Your task to perform on an android device: Add "razer nari" to the cart on newegg.com, then select checkout. Image 0: 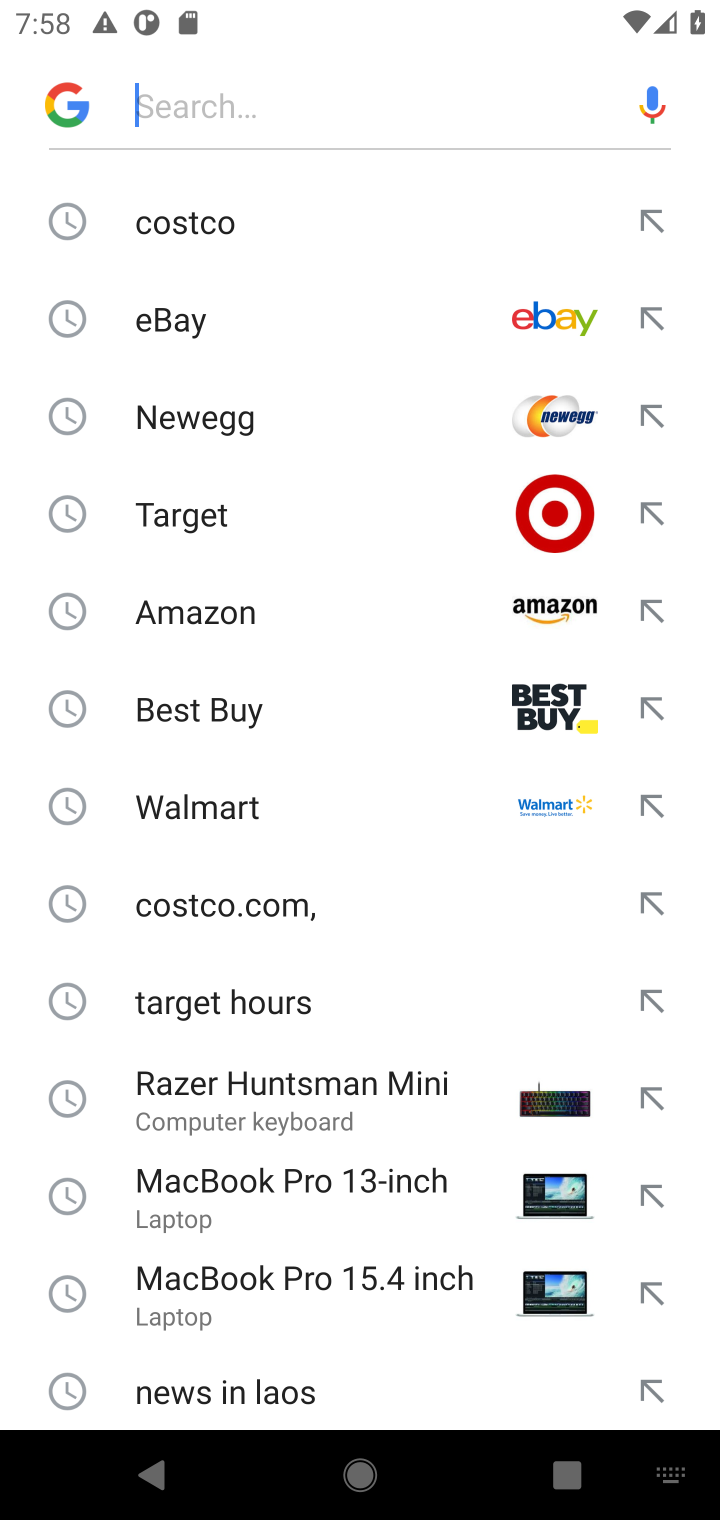
Step 0: type "newegg.com"
Your task to perform on an android device: Add "razer nari" to the cart on newegg.com, then select checkout. Image 1: 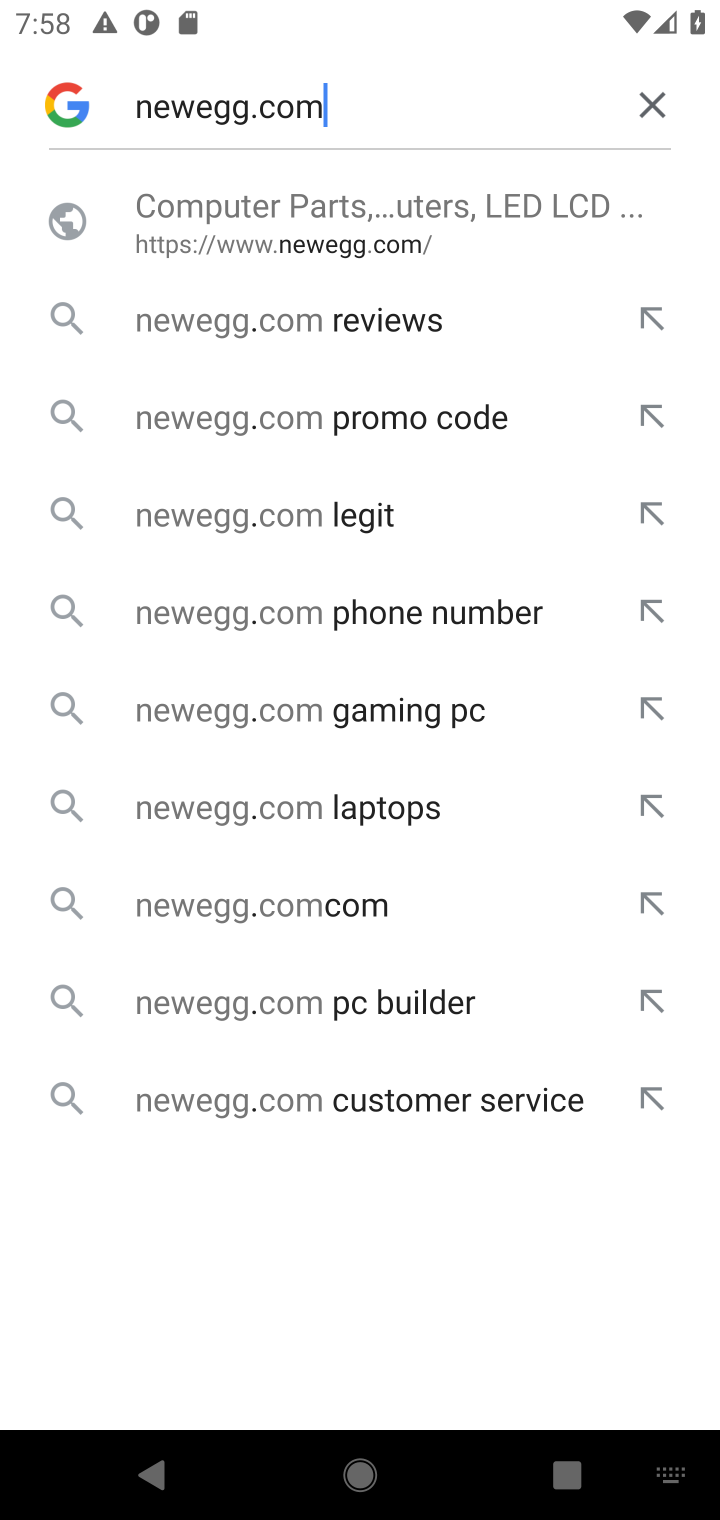
Step 1: click (144, 231)
Your task to perform on an android device: Add "razer nari" to the cart on newegg.com, then select checkout. Image 2: 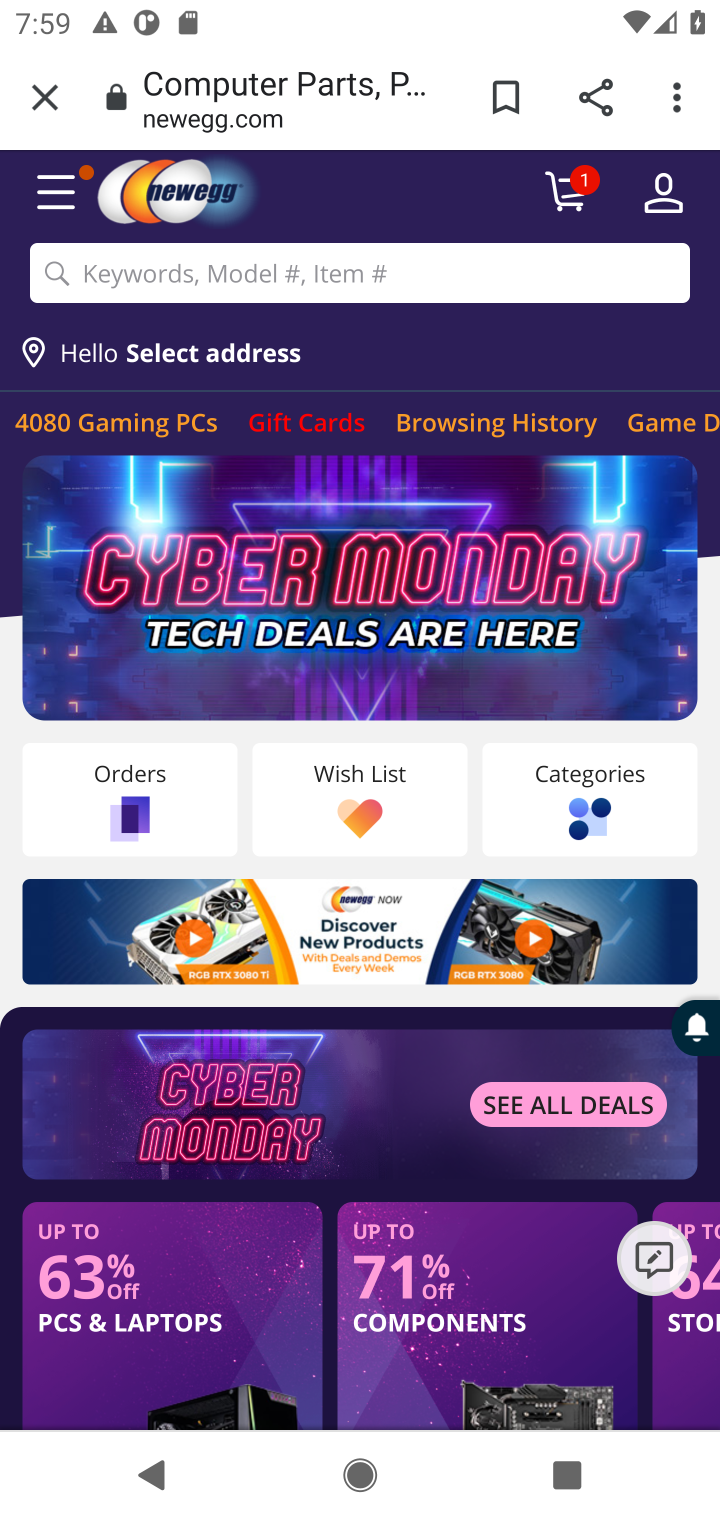
Step 2: click (107, 306)
Your task to perform on an android device: Add "razer nari" to the cart on newegg.com, then select checkout. Image 3: 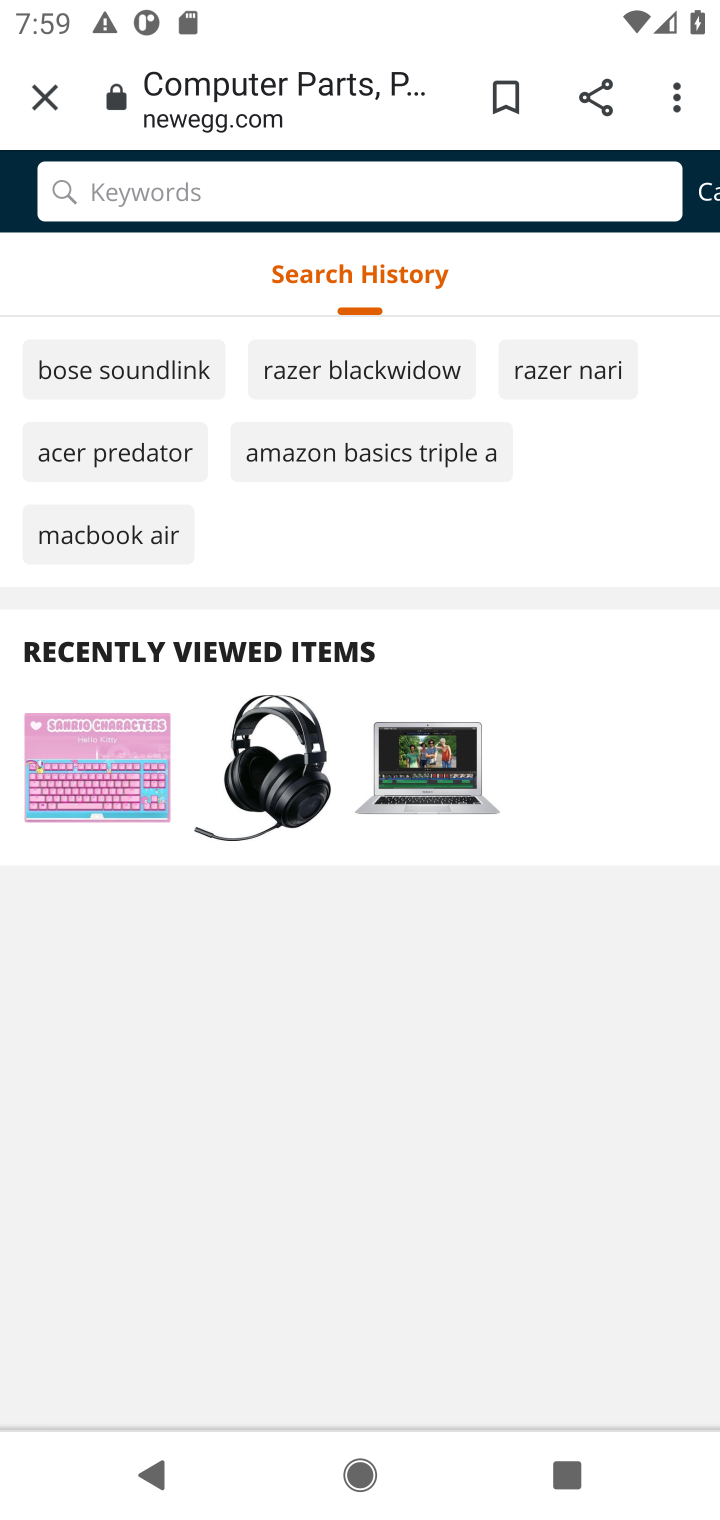
Step 3: click (116, 286)
Your task to perform on an android device: Add "razer nari" to the cart on newegg.com, then select checkout. Image 4: 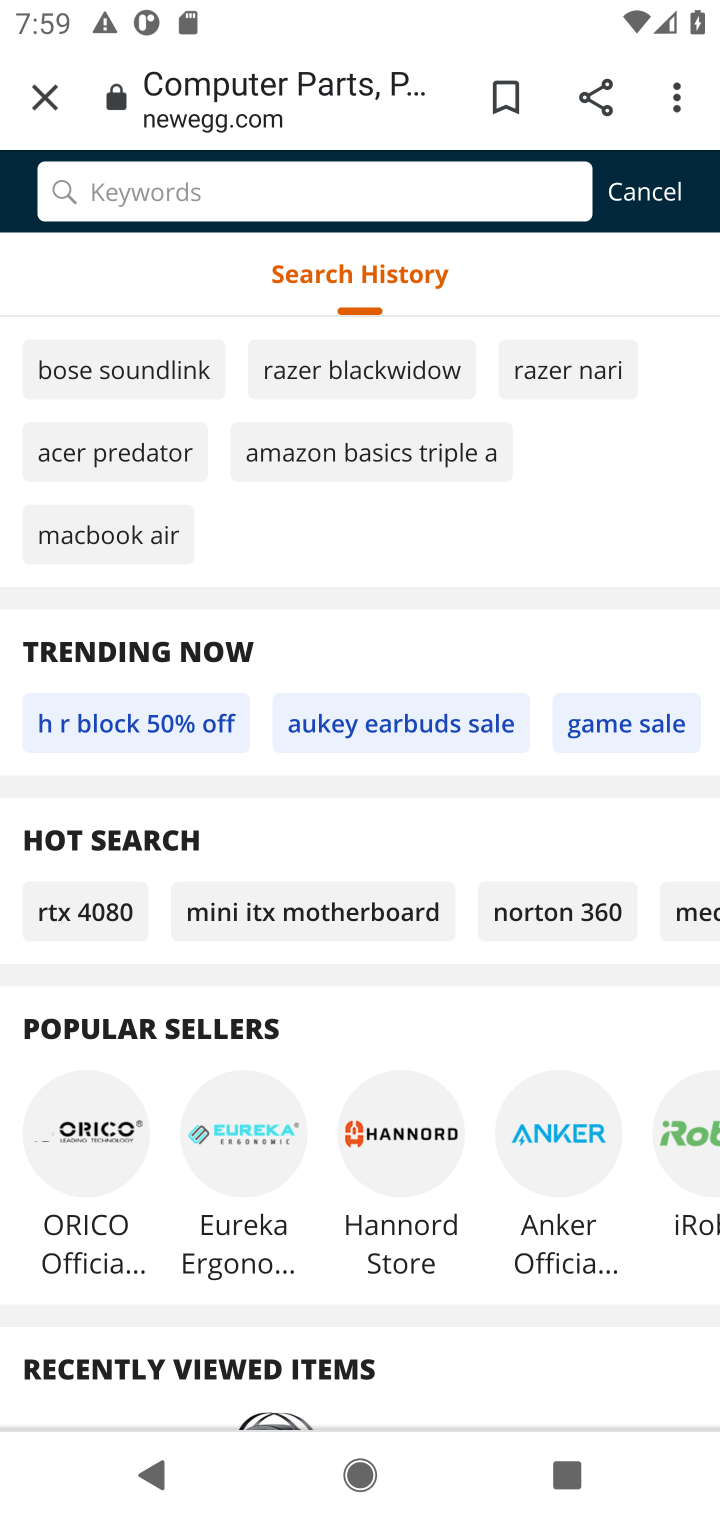
Step 4: click (98, 200)
Your task to perform on an android device: Add "razer nari" to the cart on newegg.com, then select checkout. Image 5: 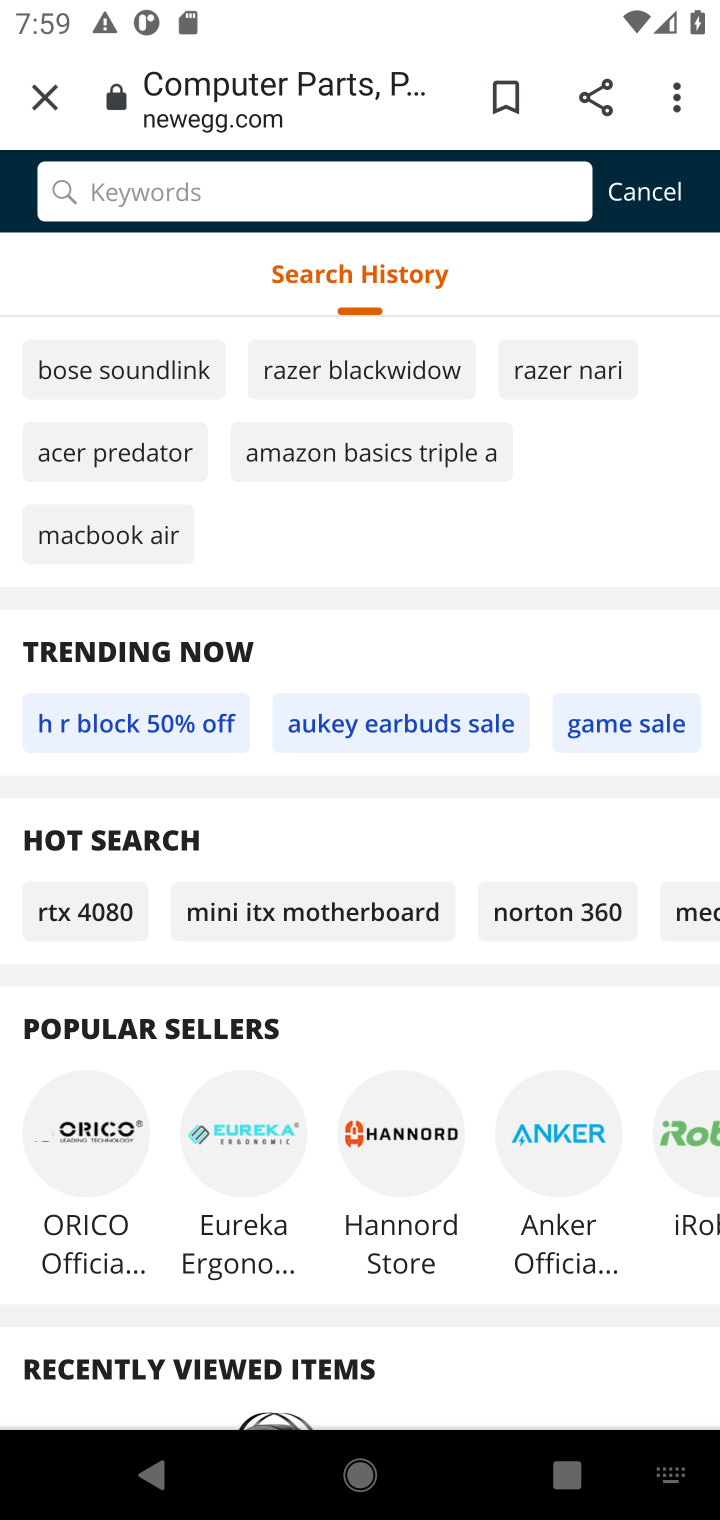
Step 5: type "razer nari"
Your task to perform on an android device: Add "razer nari" to the cart on newegg.com, then select checkout. Image 6: 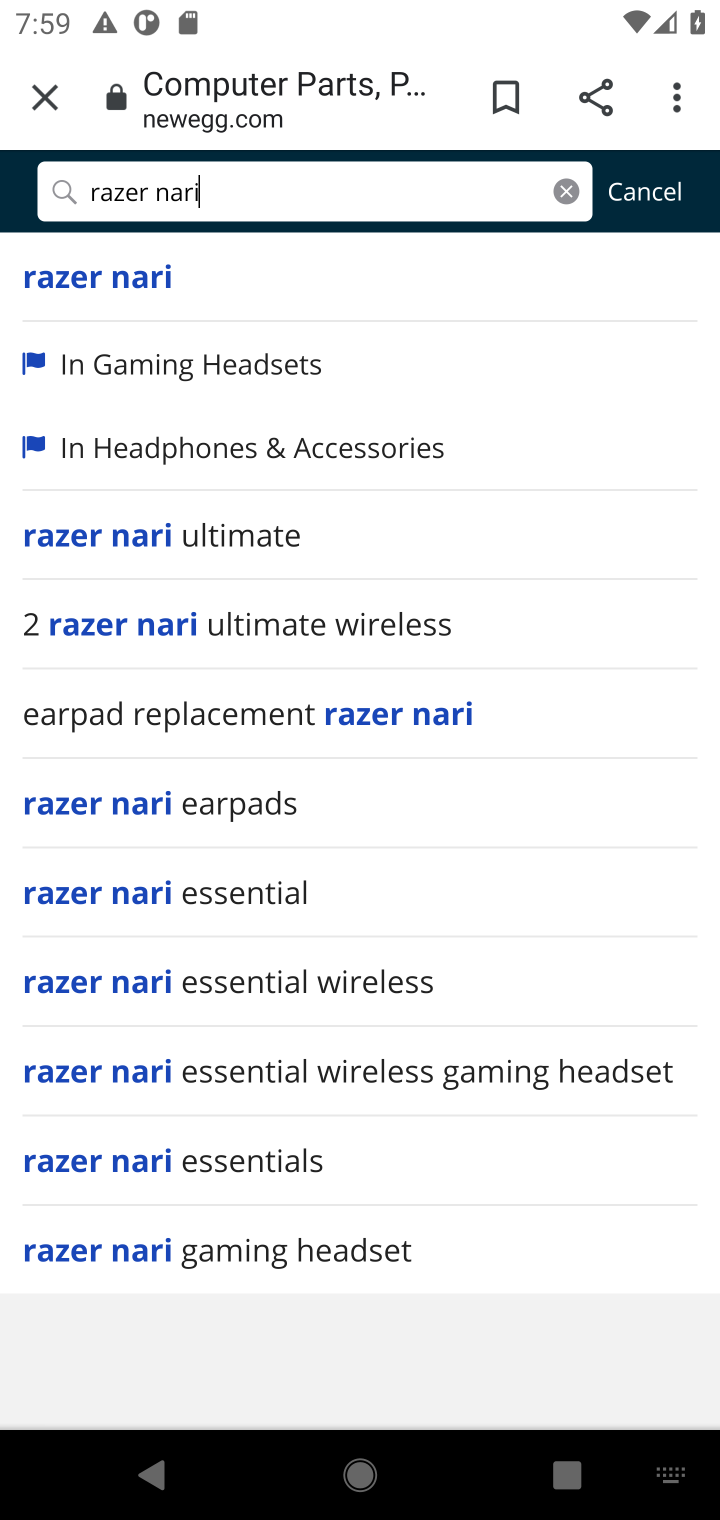
Step 6: click (133, 296)
Your task to perform on an android device: Add "razer nari" to the cart on newegg.com, then select checkout. Image 7: 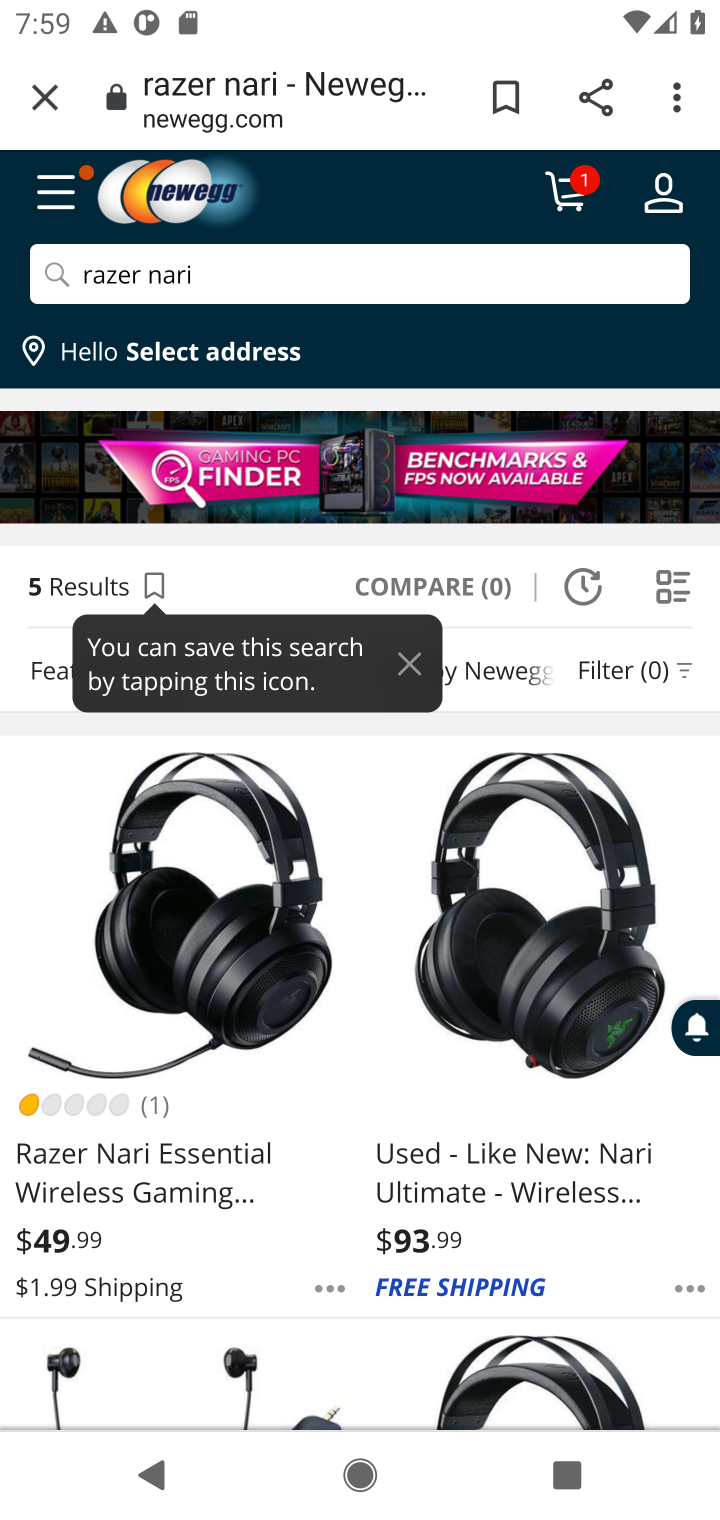
Step 7: click (211, 965)
Your task to perform on an android device: Add "razer nari" to the cart on newegg.com, then select checkout. Image 8: 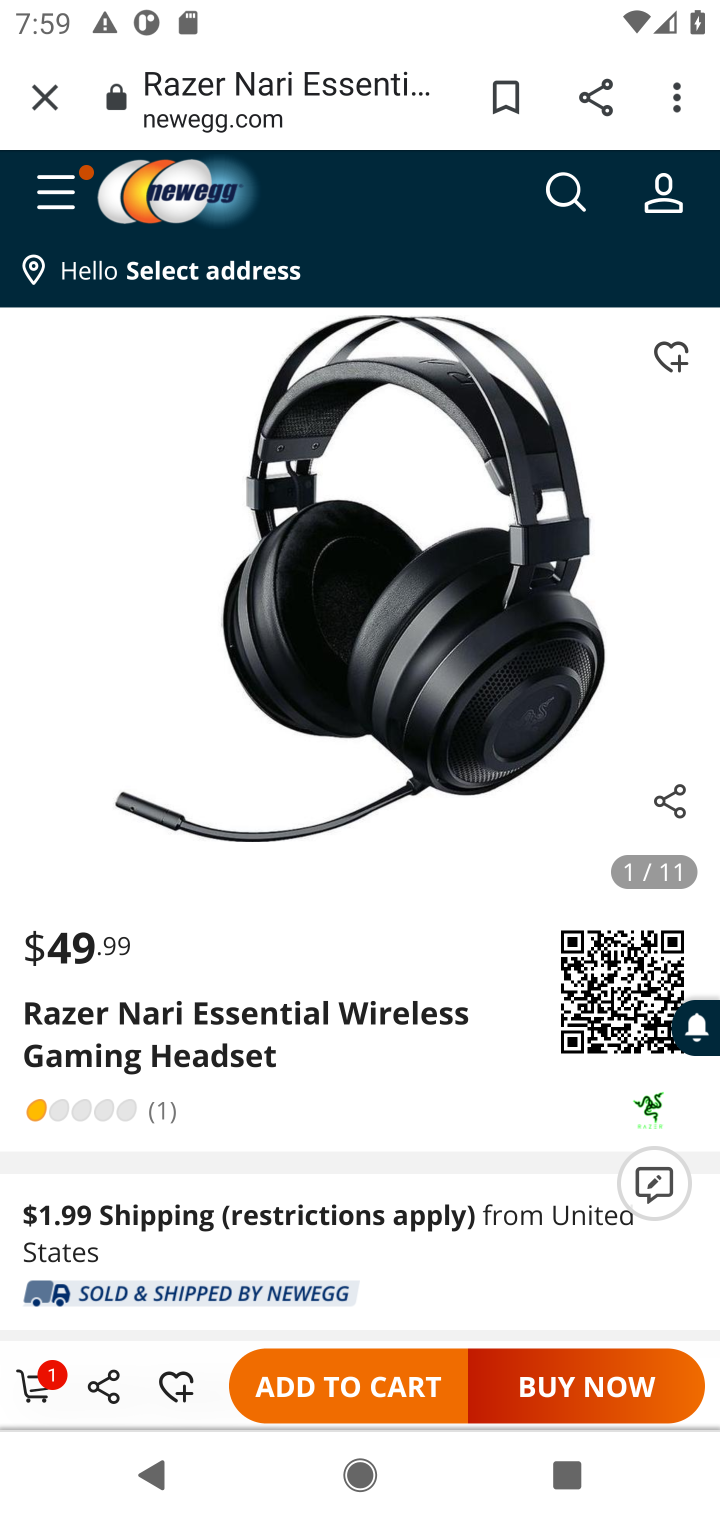
Step 8: click (306, 1375)
Your task to perform on an android device: Add "razer nari" to the cart on newegg.com, then select checkout. Image 9: 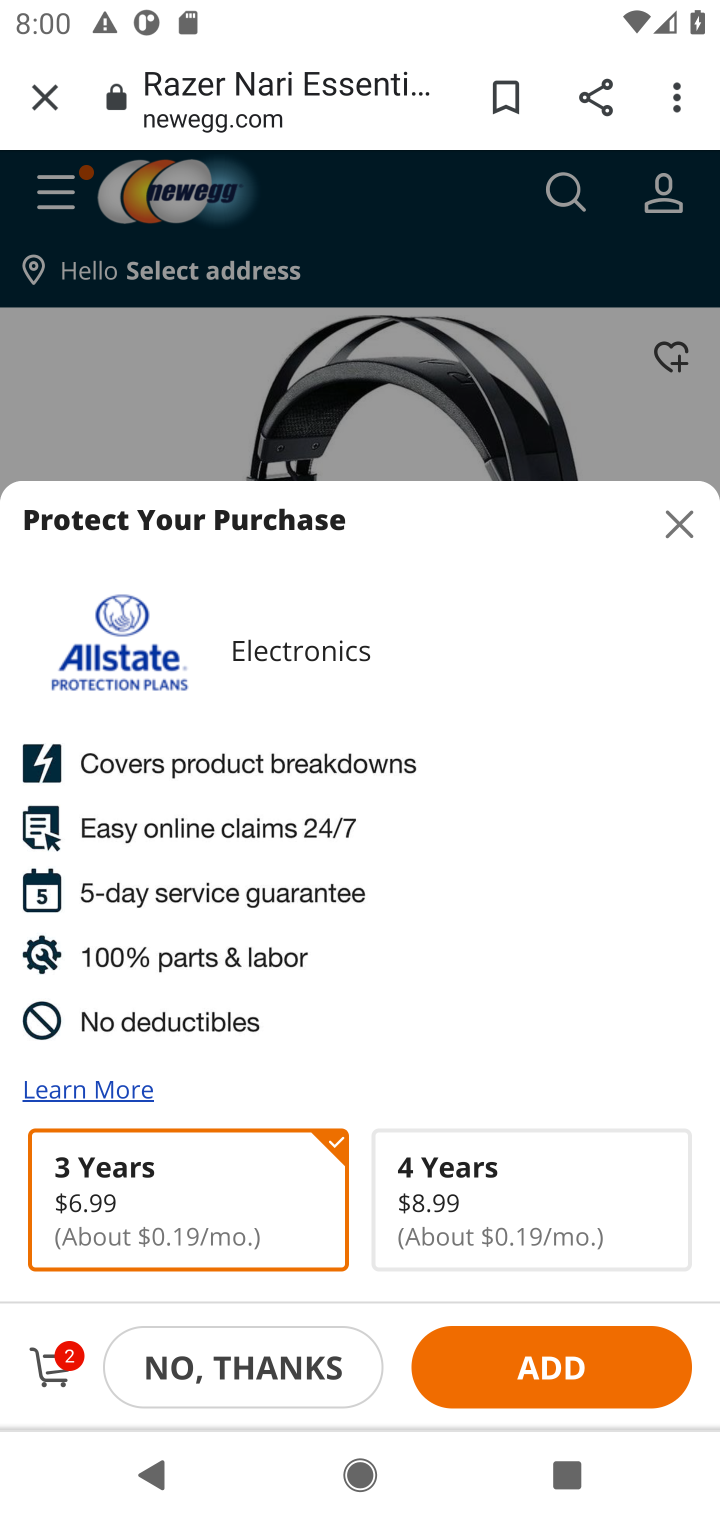
Step 9: click (69, 1366)
Your task to perform on an android device: Add "razer nari" to the cart on newegg.com, then select checkout. Image 10: 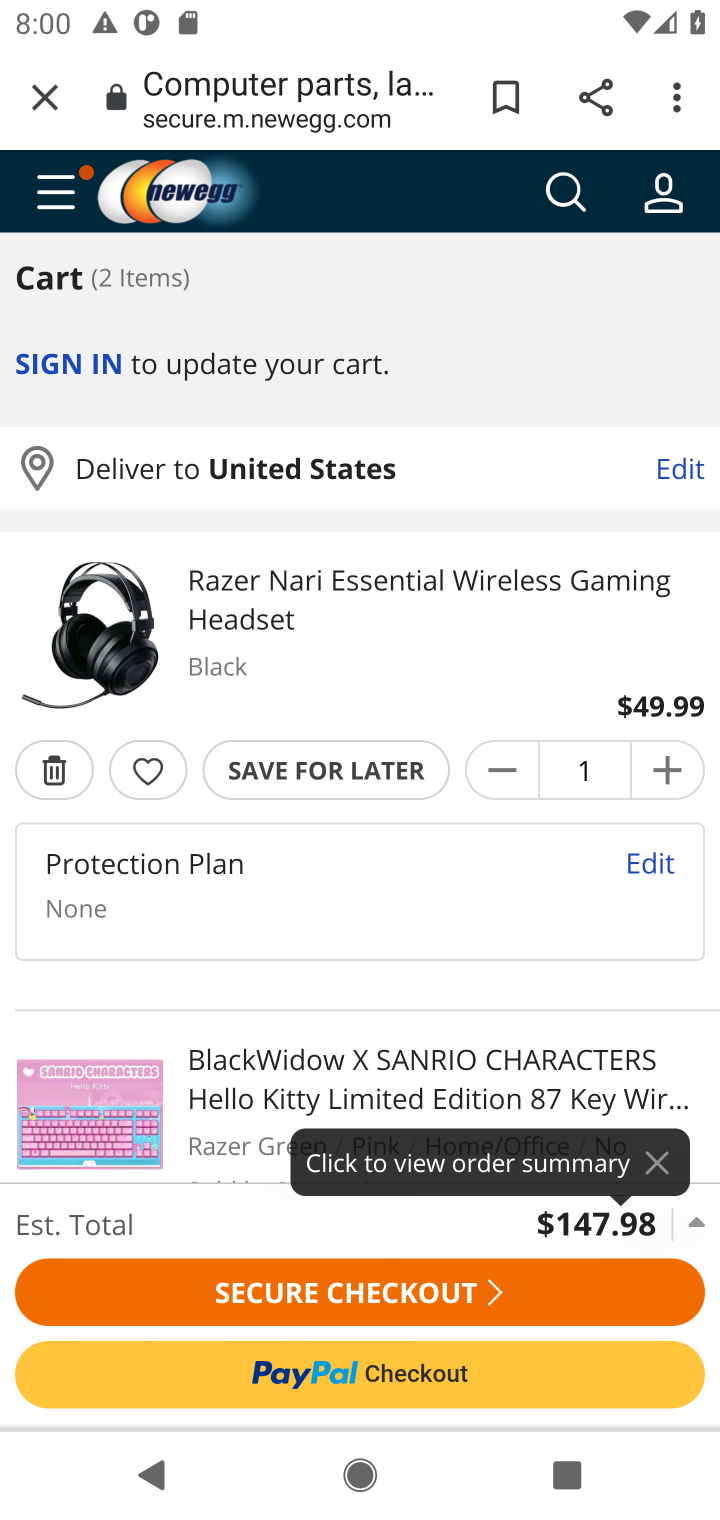
Step 10: click (435, 1293)
Your task to perform on an android device: Add "razer nari" to the cart on newegg.com, then select checkout. Image 11: 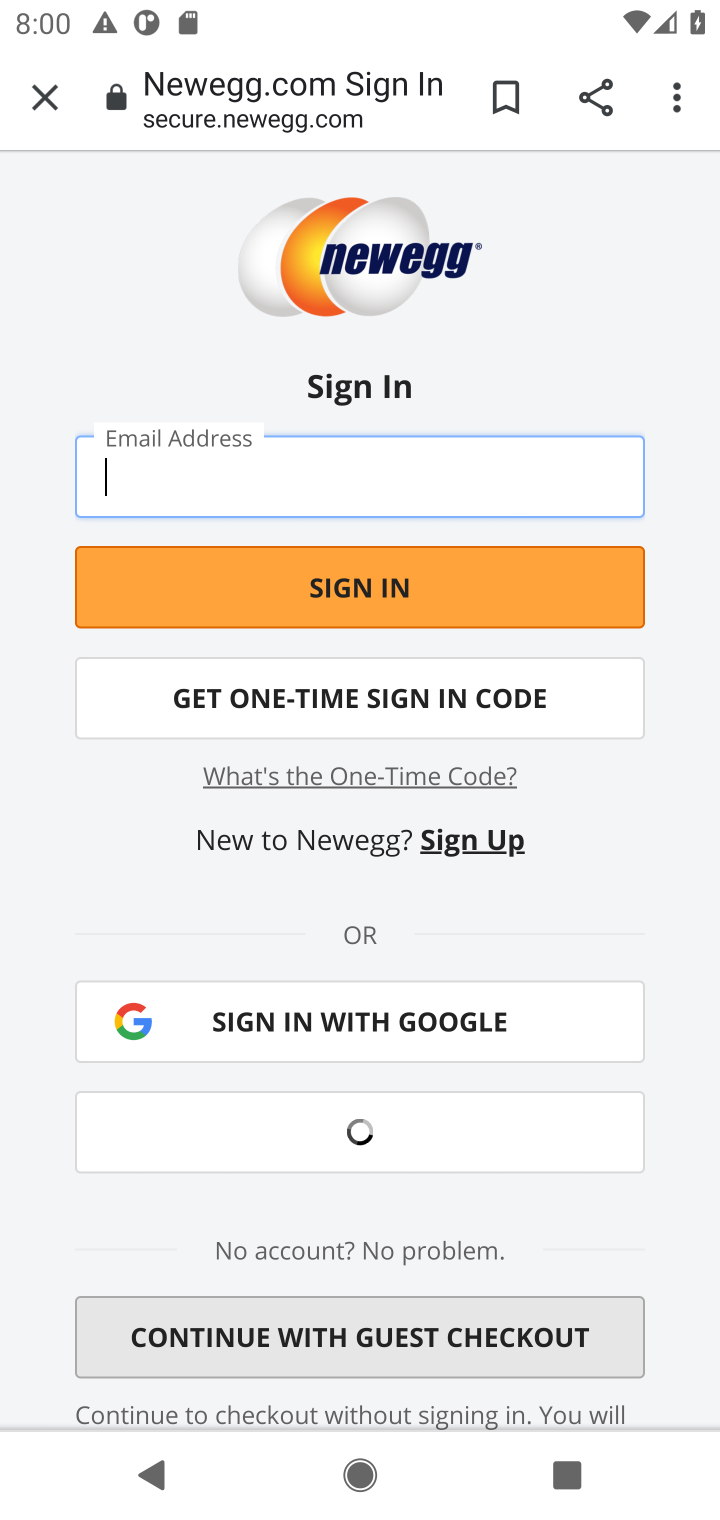
Step 11: task complete